Your task to perform on an android device: Go to notification settings Image 0: 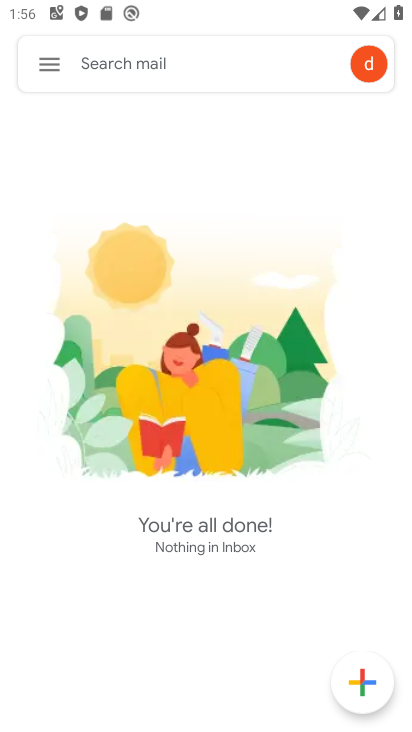
Step 0: press home button
Your task to perform on an android device: Go to notification settings Image 1: 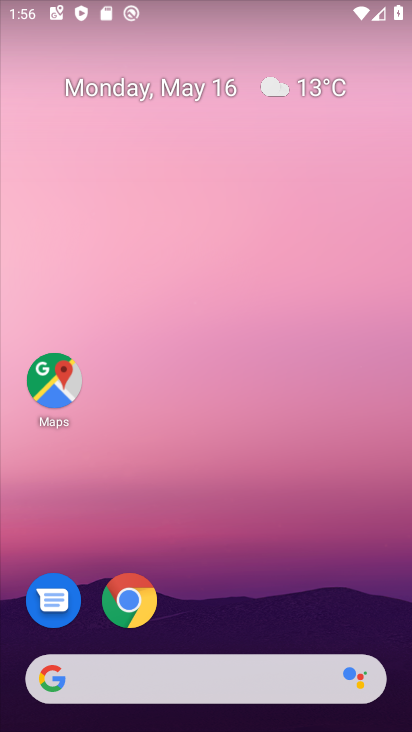
Step 1: drag from (300, 633) to (351, 11)
Your task to perform on an android device: Go to notification settings Image 2: 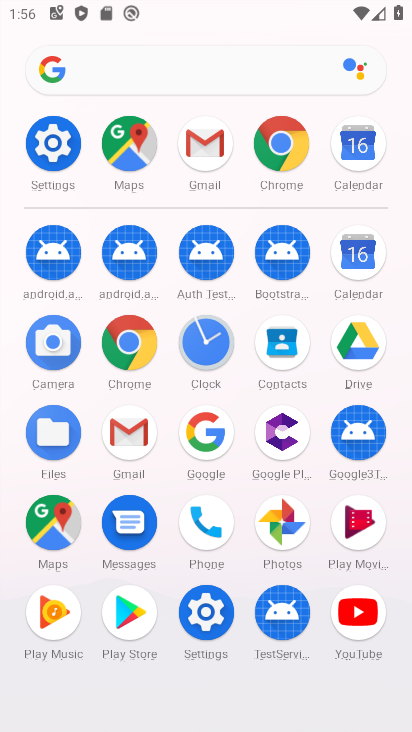
Step 2: click (199, 612)
Your task to perform on an android device: Go to notification settings Image 3: 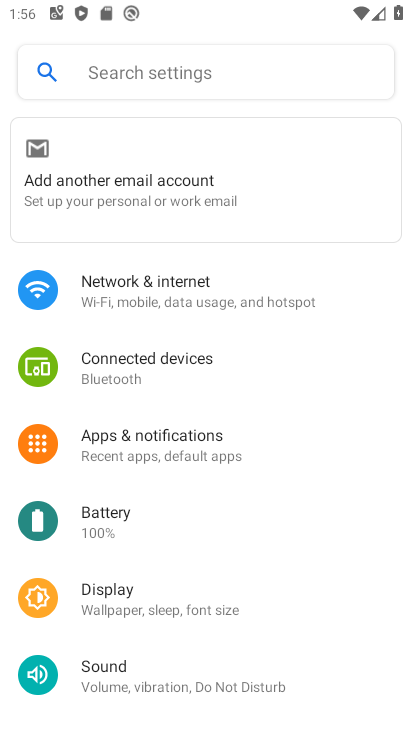
Step 3: click (135, 442)
Your task to perform on an android device: Go to notification settings Image 4: 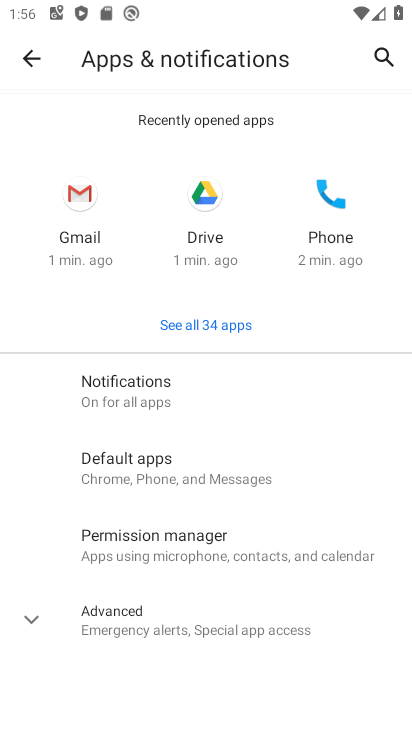
Step 4: click (157, 383)
Your task to perform on an android device: Go to notification settings Image 5: 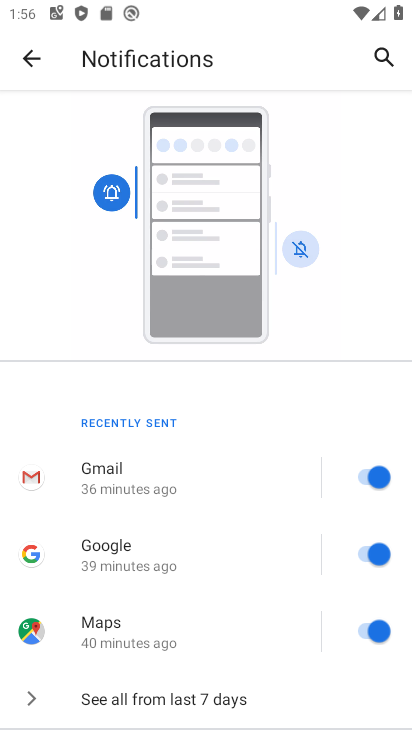
Step 5: task complete